Your task to perform on an android device: refresh tabs in the chrome app Image 0: 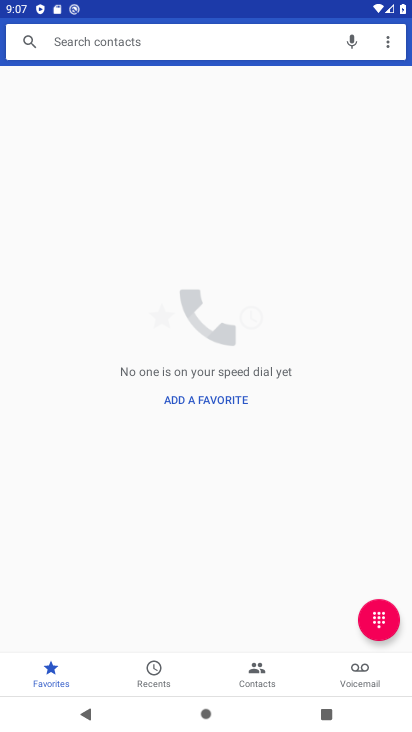
Step 0: press home button
Your task to perform on an android device: refresh tabs in the chrome app Image 1: 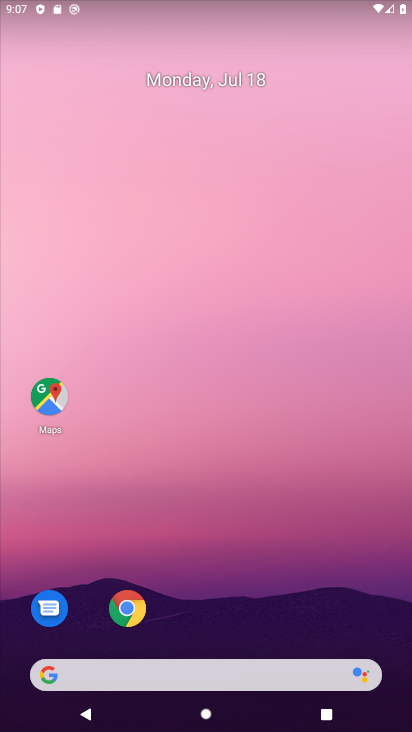
Step 1: click (130, 612)
Your task to perform on an android device: refresh tabs in the chrome app Image 2: 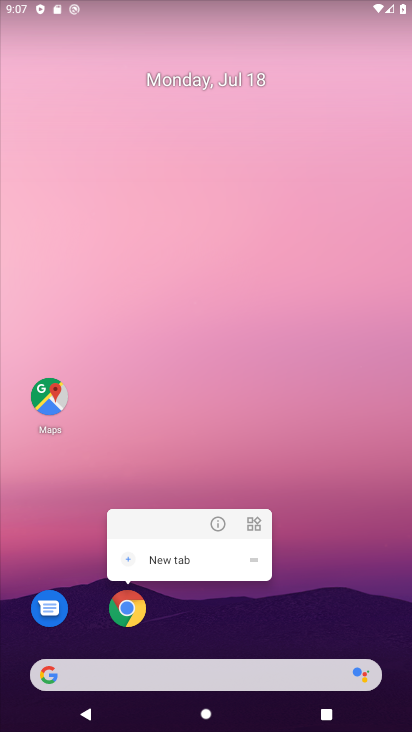
Step 2: click (125, 614)
Your task to perform on an android device: refresh tabs in the chrome app Image 3: 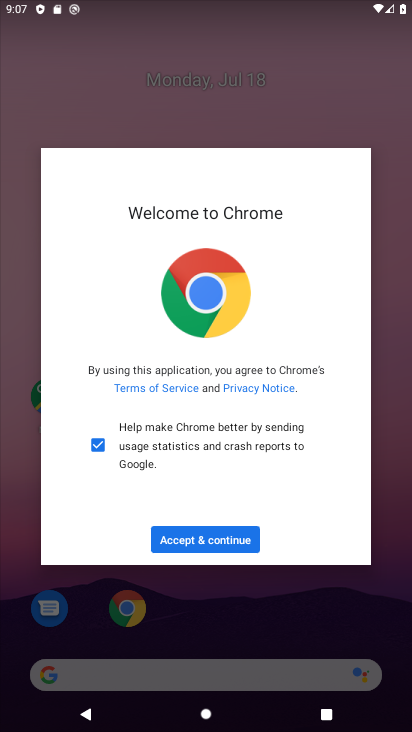
Step 3: click (202, 544)
Your task to perform on an android device: refresh tabs in the chrome app Image 4: 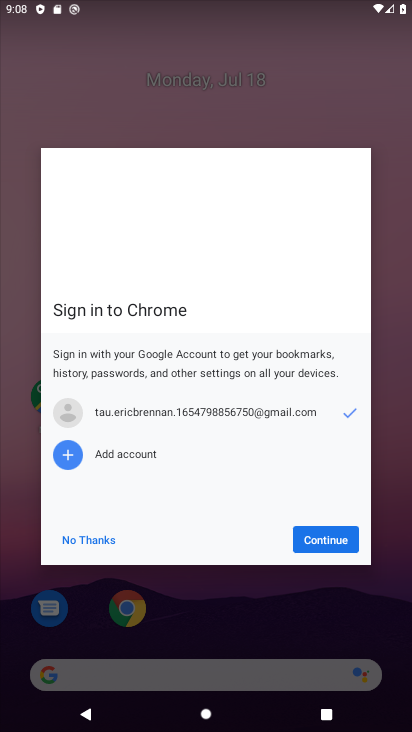
Step 4: click (334, 535)
Your task to perform on an android device: refresh tabs in the chrome app Image 5: 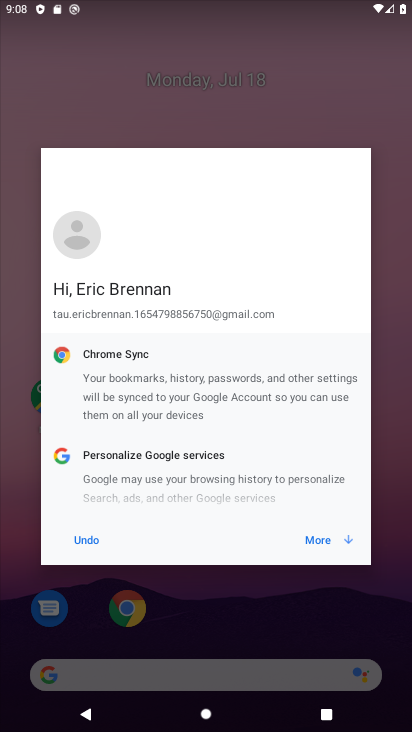
Step 5: click (333, 536)
Your task to perform on an android device: refresh tabs in the chrome app Image 6: 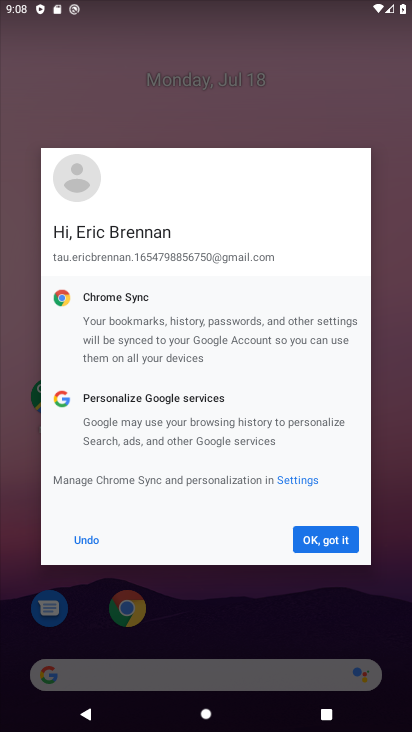
Step 6: click (334, 537)
Your task to perform on an android device: refresh tabs in the chrome app Image 7: 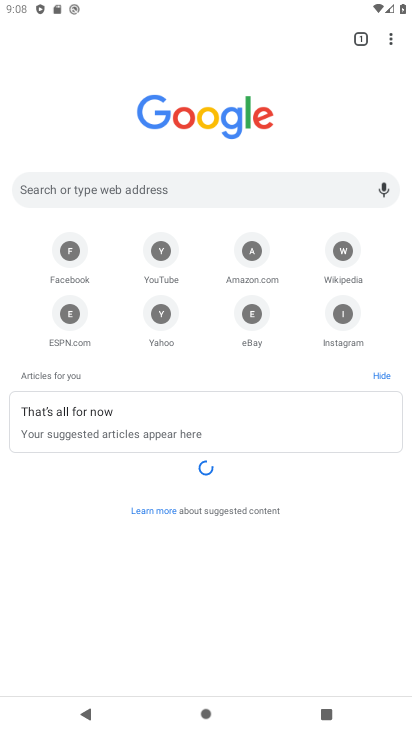
Step 7: click (390, 37)
Your task to perform on an android device: refresh tabs in the chrome app Image 8: 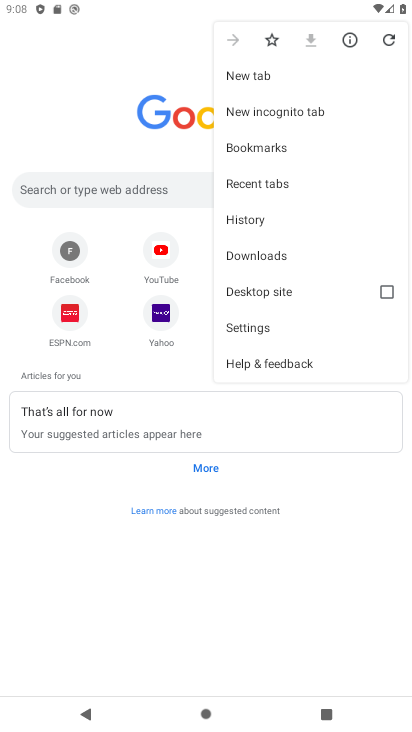
Step 8: click (388, 38)
Your task to perform on an android device: refresh tabs in the chrome app Image 9: 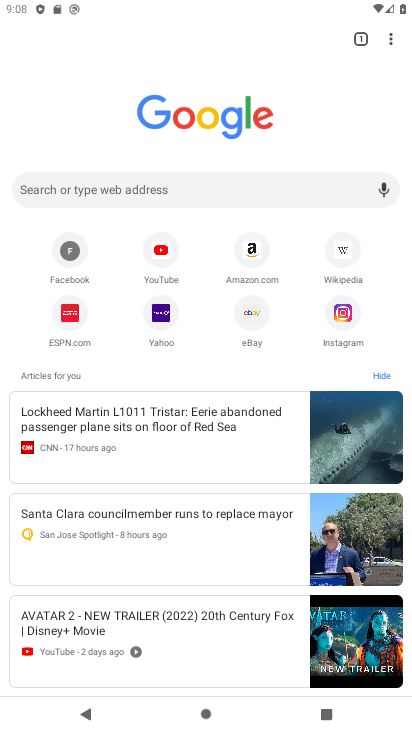
Step 9: task complete